Your task to perform on an android device: Check the news Image 0: 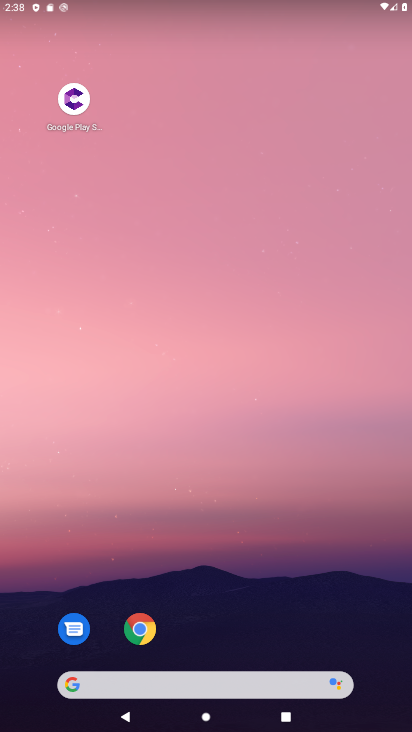
Step 0: drag from (302, 639) to (233, 315)
Your task to perform on an android device: Check the news Image 1: 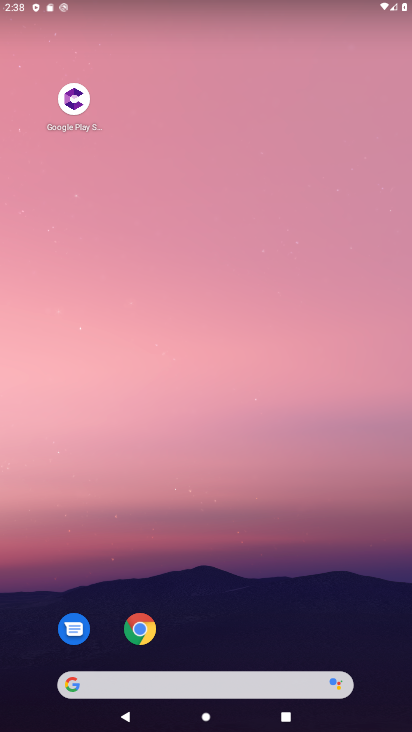
Step 1: task complete